Your task to perform on an android device: Open Amazon Image 0: 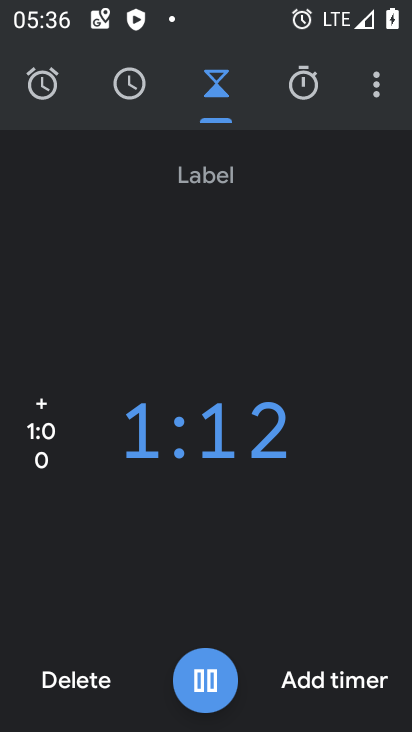
Step 0: press home button
Your task to perform on an android device: Open Amazon Image 1: 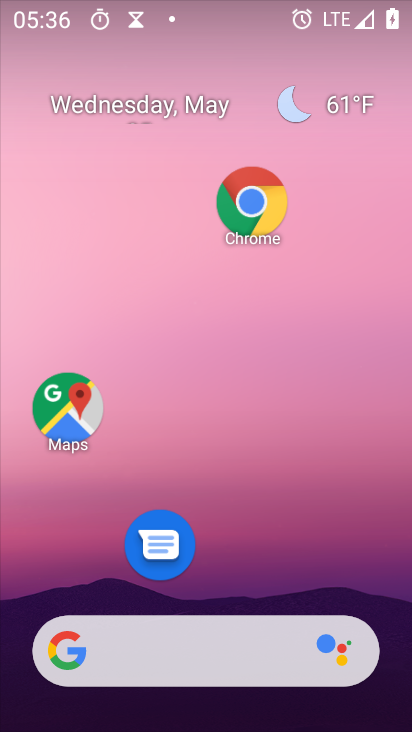
Step 1: drag from (249, 588) to (249, 264)
Your task to perform on an android device: Open Amazon Image 2: 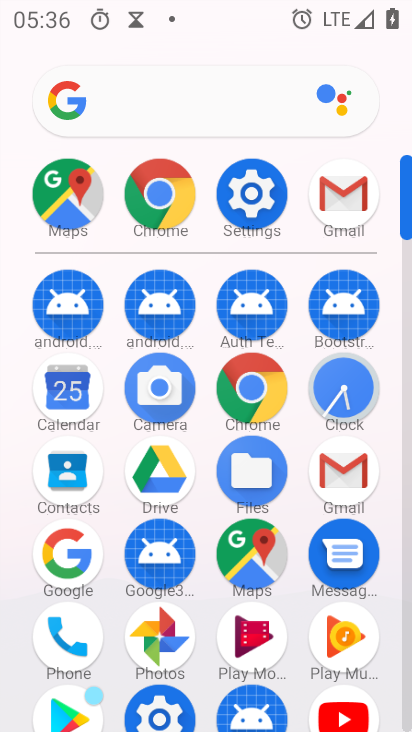
Step 2: click (143, 192)
Your task to perform on an android device: Open Amazon Image 3: 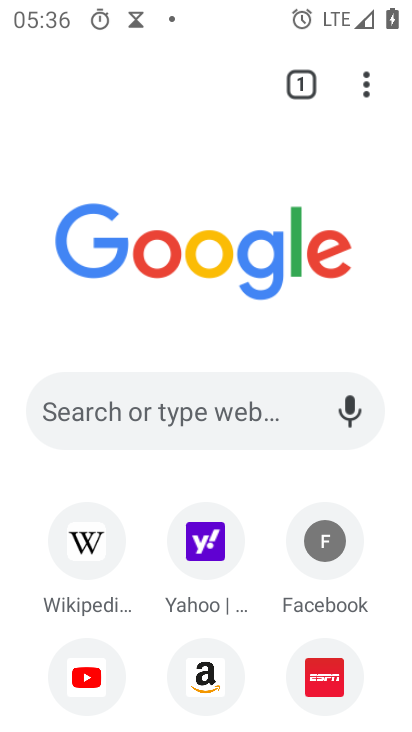
Step 3: click (201, 676)
Your task to perform on an android device: Open Amazon Image 4: 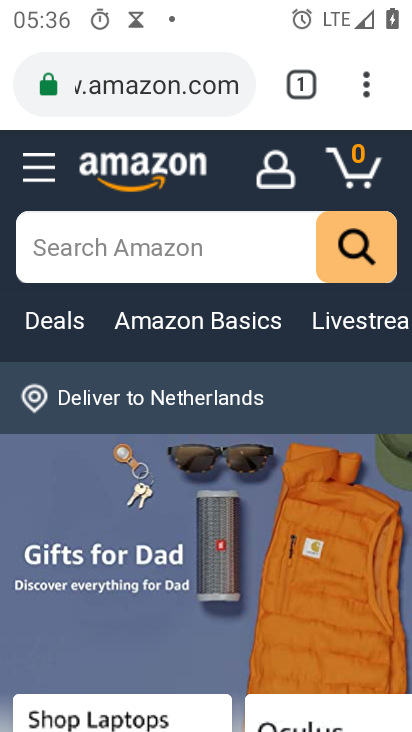
Step 4: task complete